Your task to perform on an android device: empty trash in the gmail app Image 0: 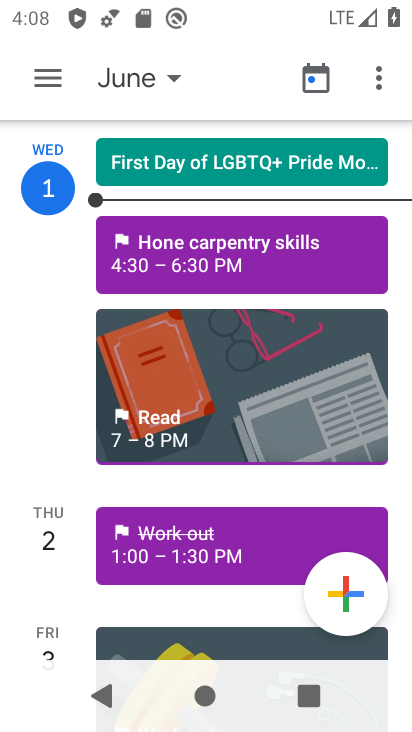
Step 0: press home button
Your task to perform on an android device: empty trash in the gmail app Image 1: 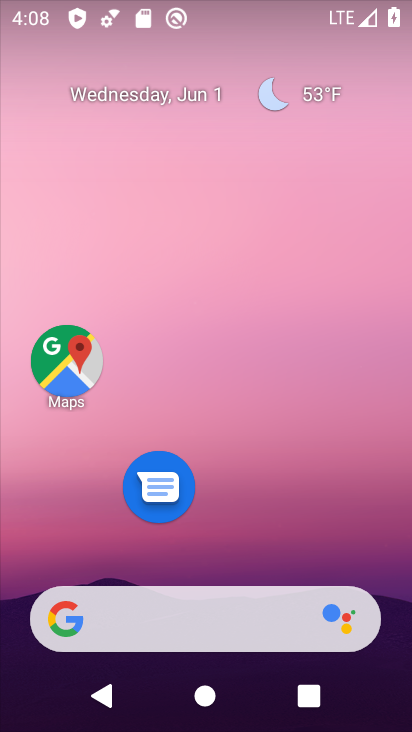
Step 1: drag from (248, 561) to (138, 0)
Your task to perform on an android device: empty trash in the gmail app Image 2: 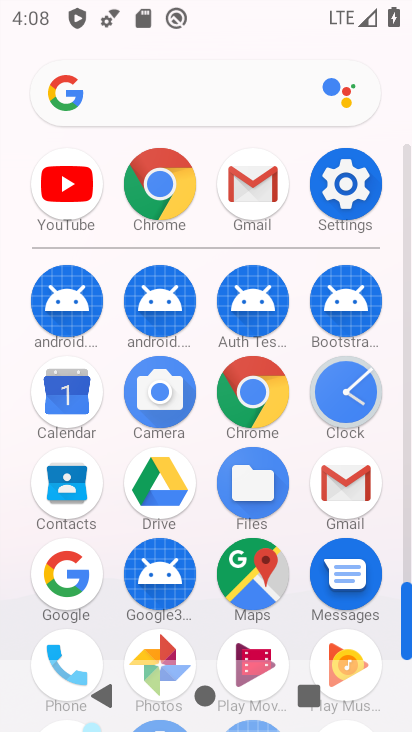
Step 2: click (322, 478)
Your task to perform on an android device: empty trash in the gmail app Image 3: 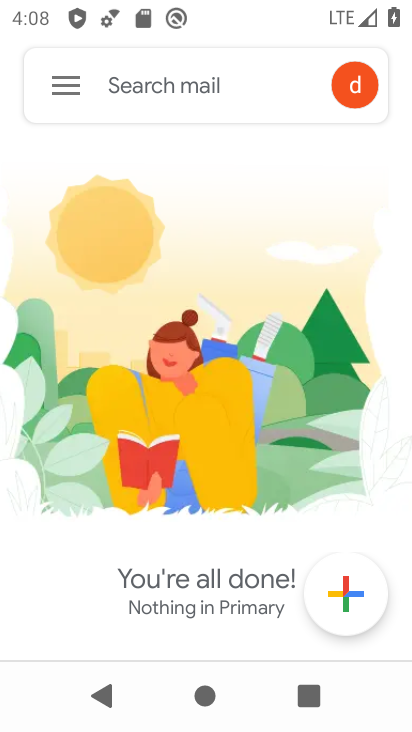
Step 3: click (54, 86)
Your task to perform on an android device: empty trash in the gmail app Image 4: 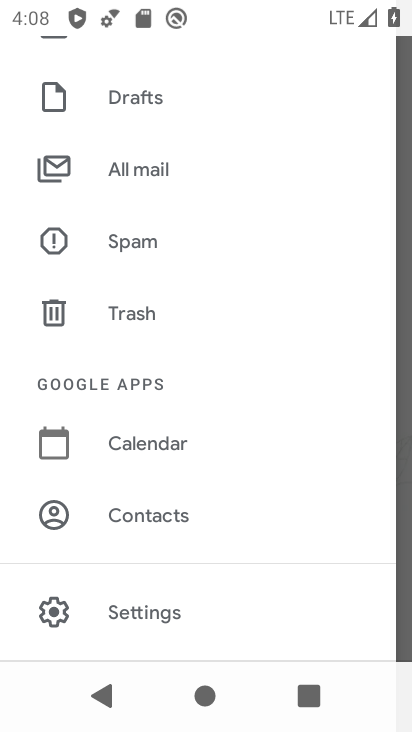
Step 4: click (118, 315)
Your task to perform on an android device: empty trash in the gmail app Image 5: 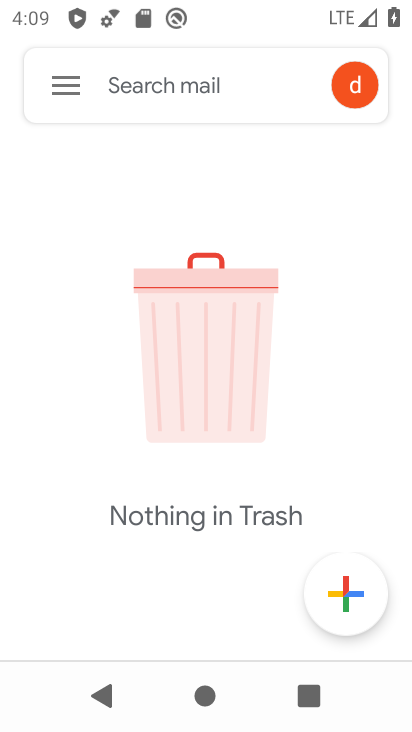
Step 5: task complete